Your task to perform on an android device: What's the weather today? Image 0: 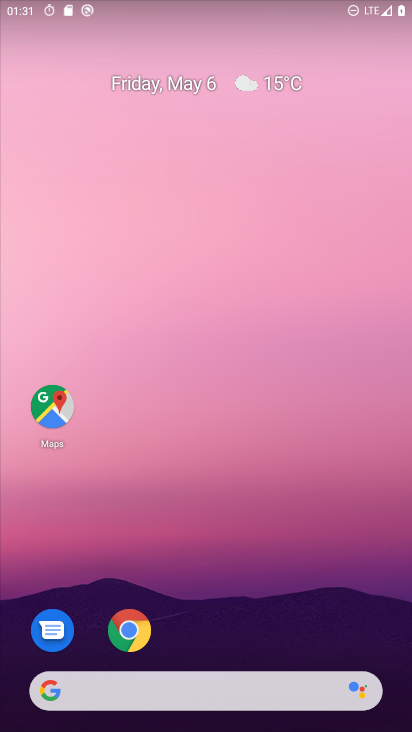
Step 0: drag from (311, 553) to (275, 0)
Your task to perform on an android device: What's the weather today? Image 1: 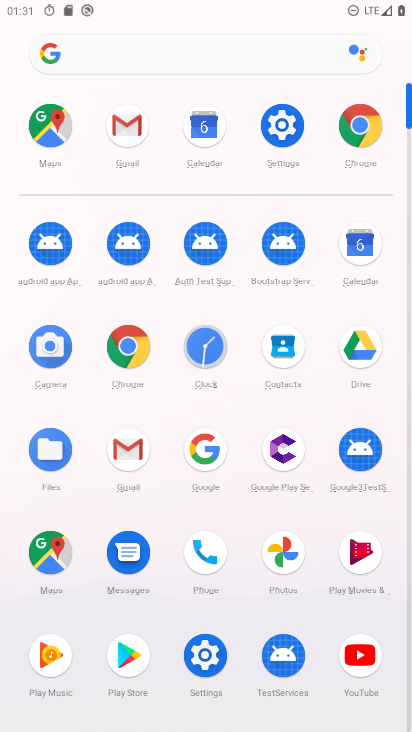
Step 1: press home button
Your task to perform on an android device: What's the weather today? Image 2: 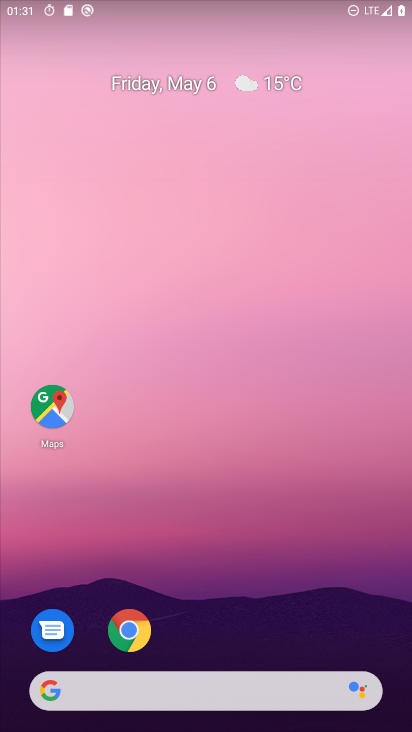
Step 2: click (257, 85)
Your task to perform on an android device: What's the weather today? Image 3: 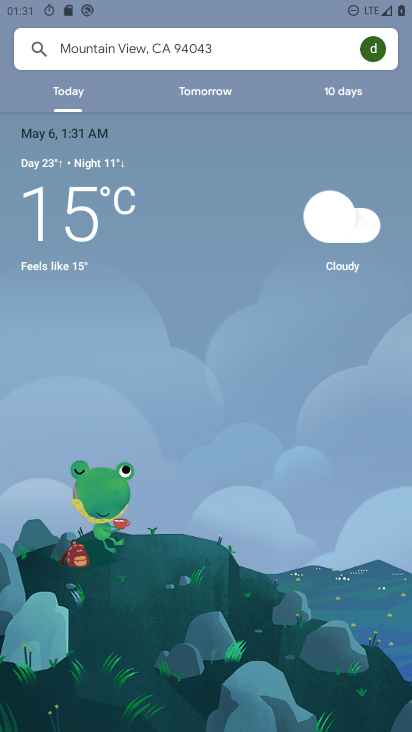
Step 3: task complete